Your task to perform on an android device: Go to Wikipedia Image 0: 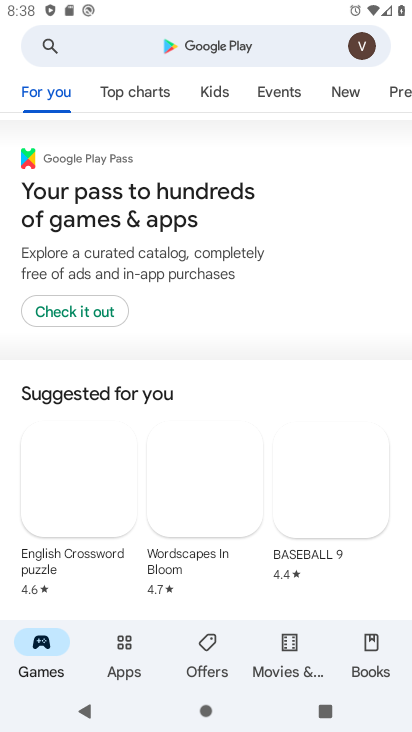
Step 0: press home button
Your task to perform on an android device: Go to Wikipedia Image 1: 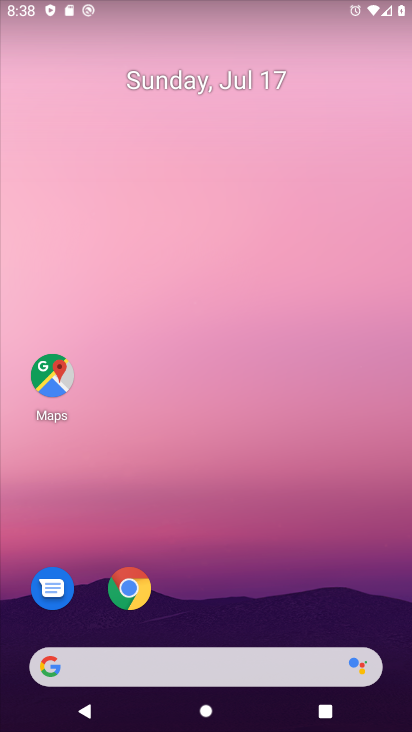
Step 1: click (143, 590)
Your task to perform on an android device: Go to Wikipedia Image 2: 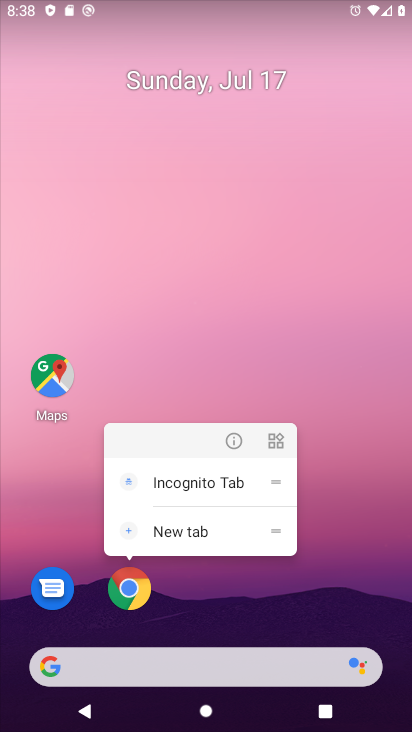
Step 2: click (137, 588)
Your task to perform on an android device: Go to Wikipedia Image 3: 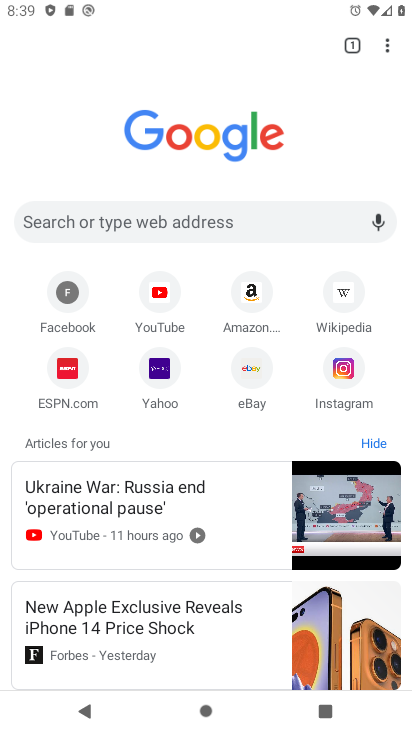
Step 3: click (345, 297)
Your task to perform on an android device: Go to Wikipedia Image 4: 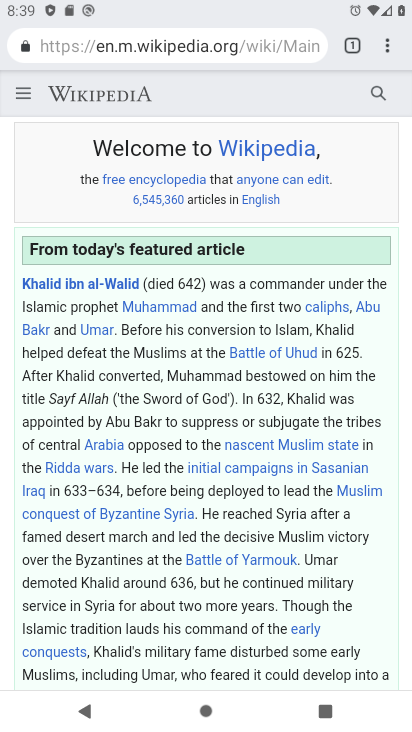
Step 4: task complete